Your task to perform on an android device: check storage Image 0: 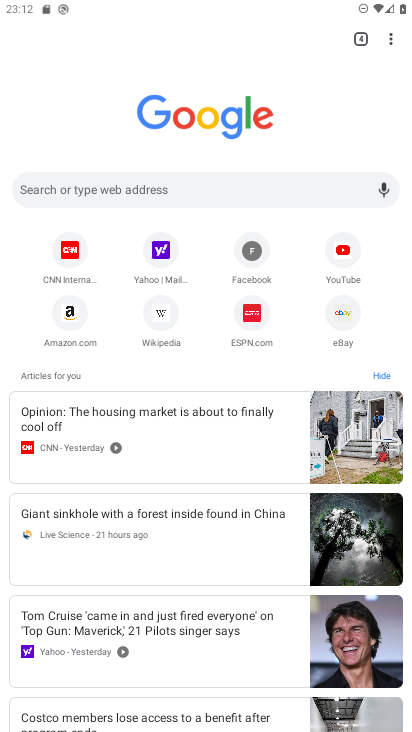
Step 0: press home button
Your task to perform on an android device: check storage Image 1: 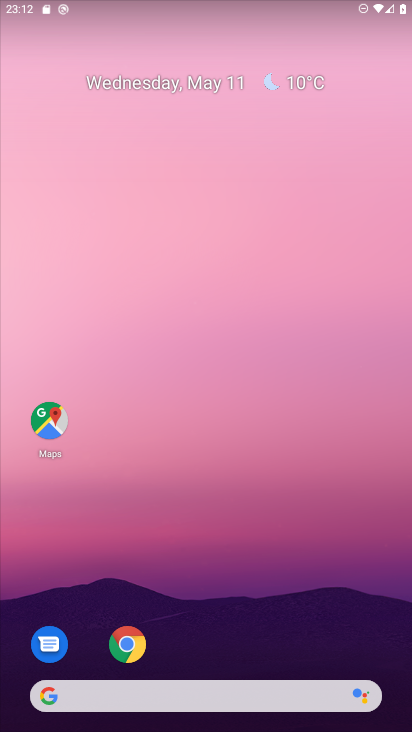
Step 1: drag from (323, 614) to (300, 173)
Your task to perform on an android device: check storage Image 2: 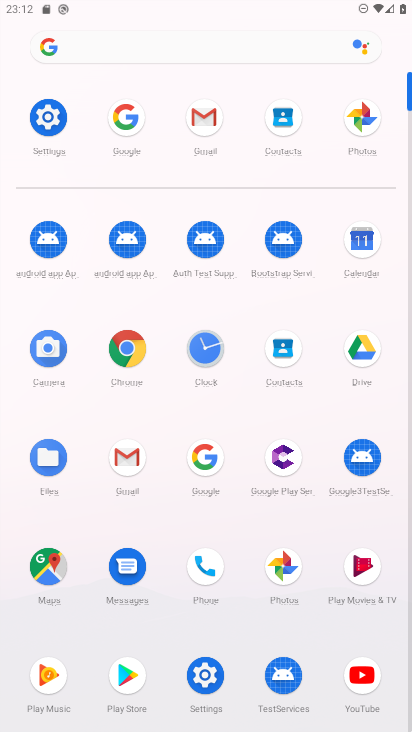
Step 2: click (52, 117)
Your task to perform on an android device: check storage Image 3: 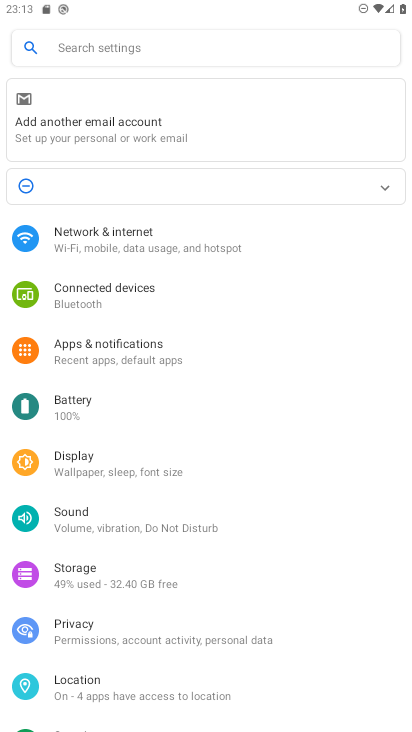
Step 3: click (104, 582)
Your task to perform on an android device: check storage Image 4: 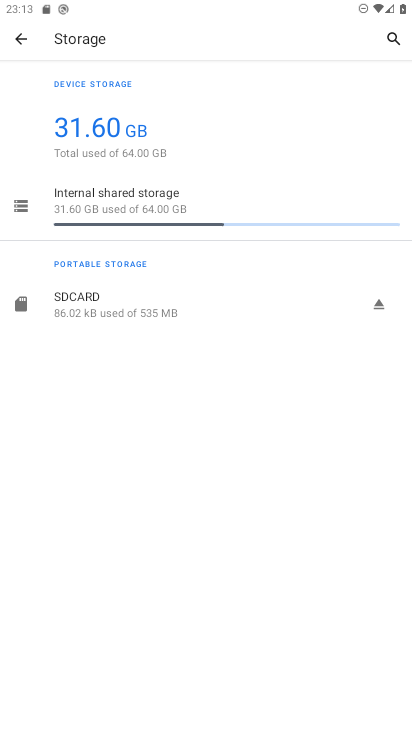
Step 4: click (108, 165)
Your task to perform on an android device: check storage Image 5: 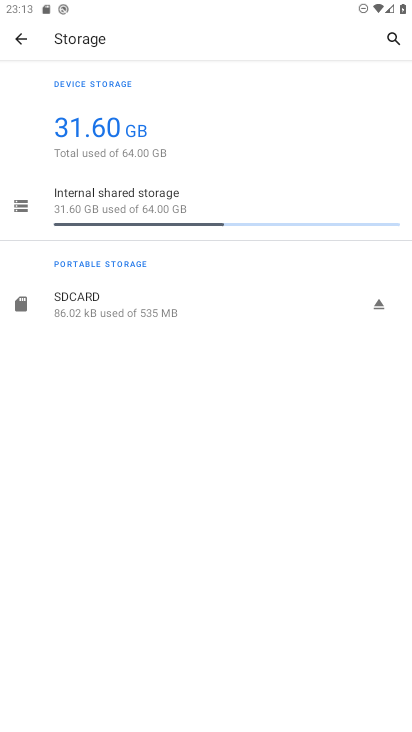
Step 5: click (197, 197)
Your task to perform on an android device: check storage Image 6: 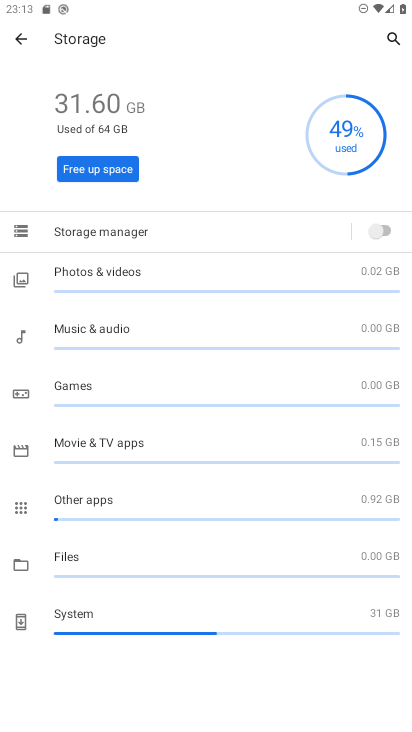
Step 6: task complete